Your task to perform on an android device: Go to Yahoo.com Image 0: 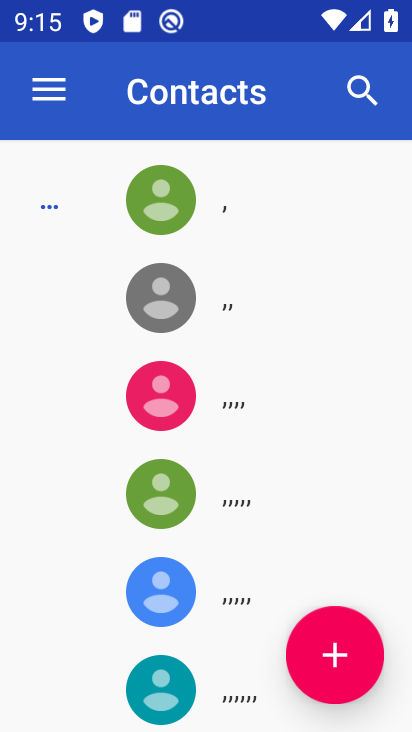
Step 0: press back button
Your task to perform on an android device: Go to Yahoo.com Image 1: 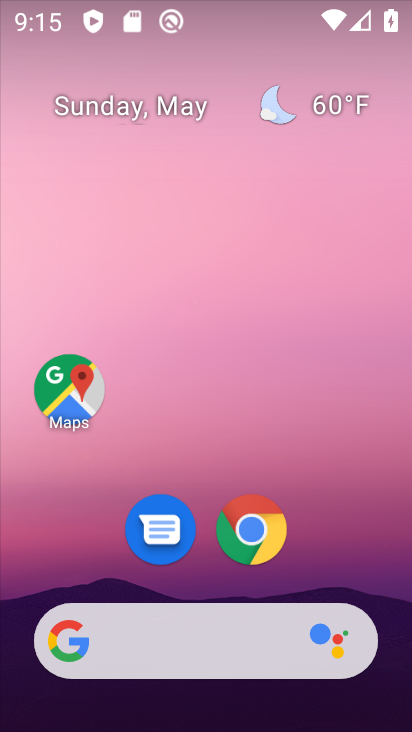
Step 1: drag from (382, 541) to (368, 168)
Your task to perform on an android device: Go to Yahoo.com Image 2: 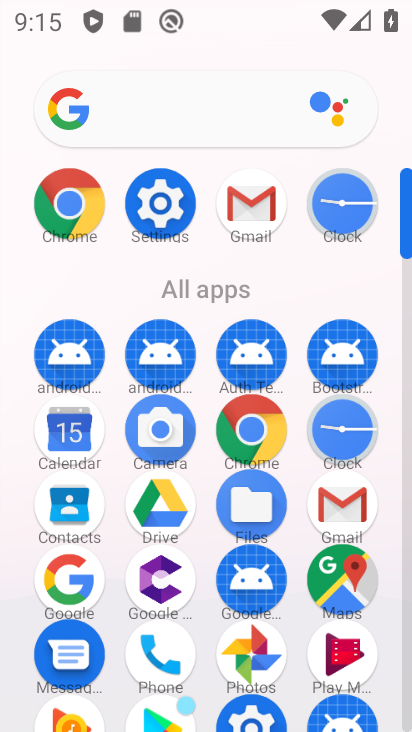
Step 2: click (260, 432)
Your task to perform on an android device: Go to Yahoo.com Image 3: 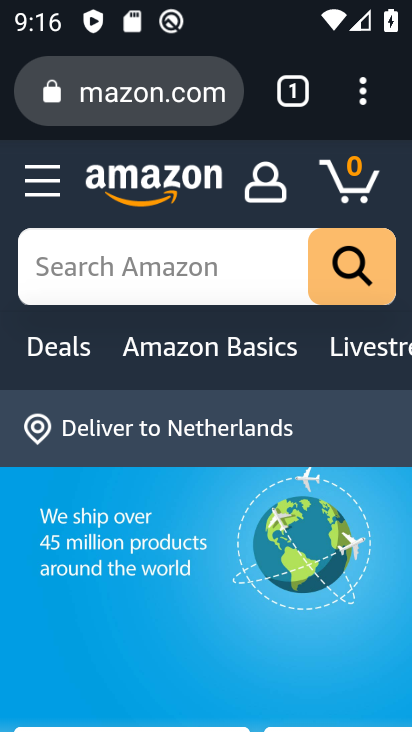
Step 3: press back button
Your task to perform on an android device: Go to Yahoo.com Image 4: 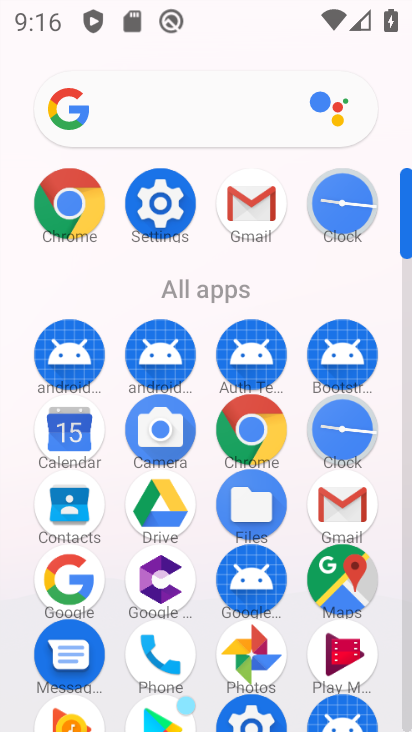
Step 4: click (260, 420)
Your task to perform on an android device: Go to Yahoo.com Image 5: 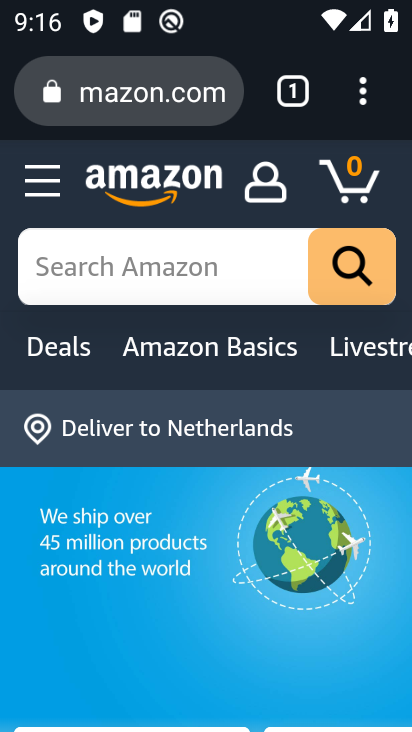
Step 5: click (175, 111)
Your task to perform on an android device: Go to Yahoo.com Image 6: 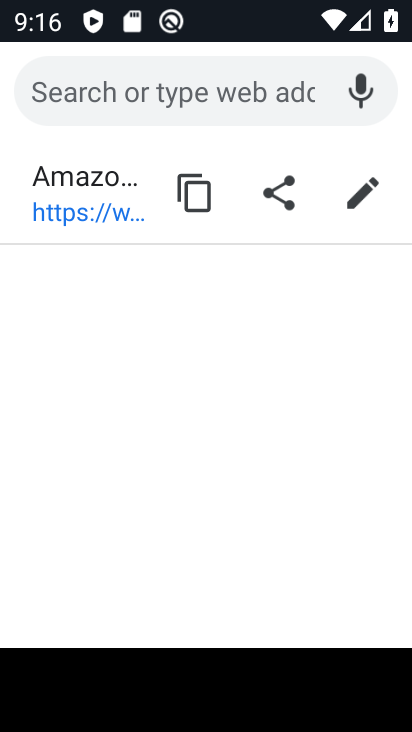
Step 6: type "yahoo.com"
Your task to perform on an android device: Go to Yahoo.com Image 7: 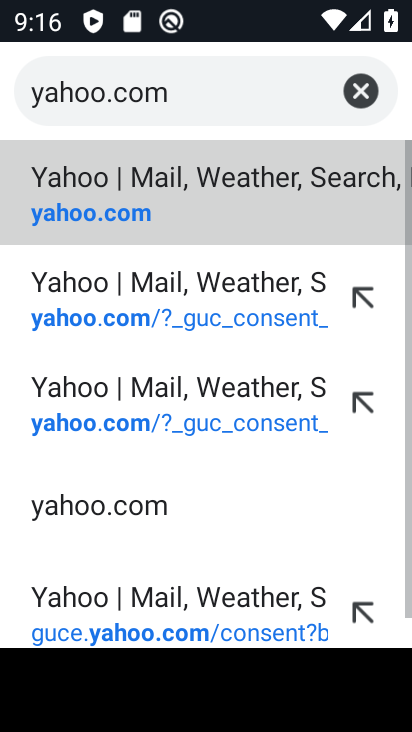
Step 7: click (144, 185)
Your task to perform on an android device: Go to Yahoo.com Image 8: 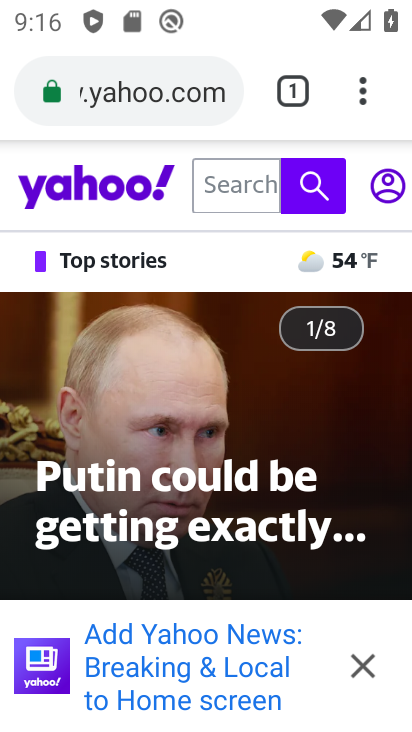
Step 8: task complete